Your task to perform on an android device: create a new album in the google photos Image 0: 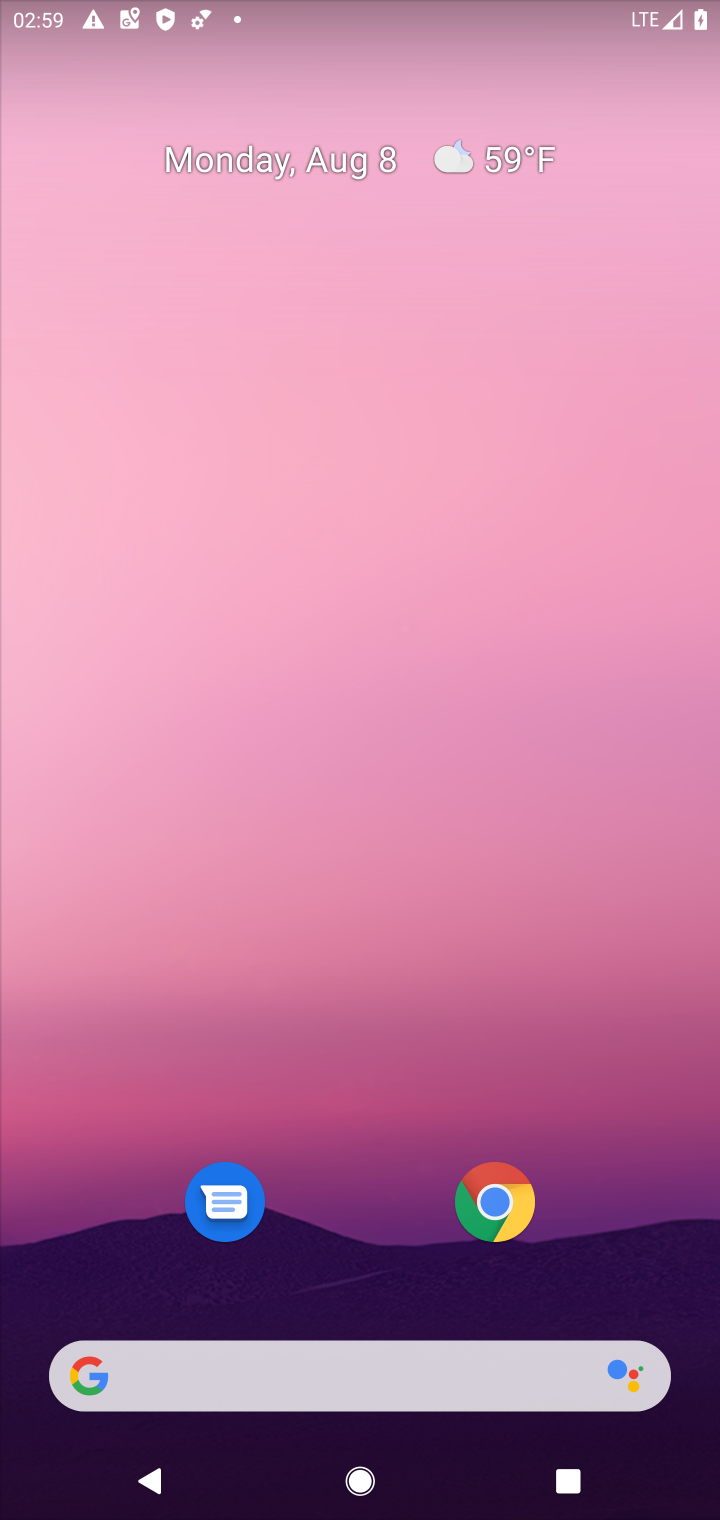
Step 0: click (358, 309)
Your task to perform on an android device: create a new album in the google photos Image 1: 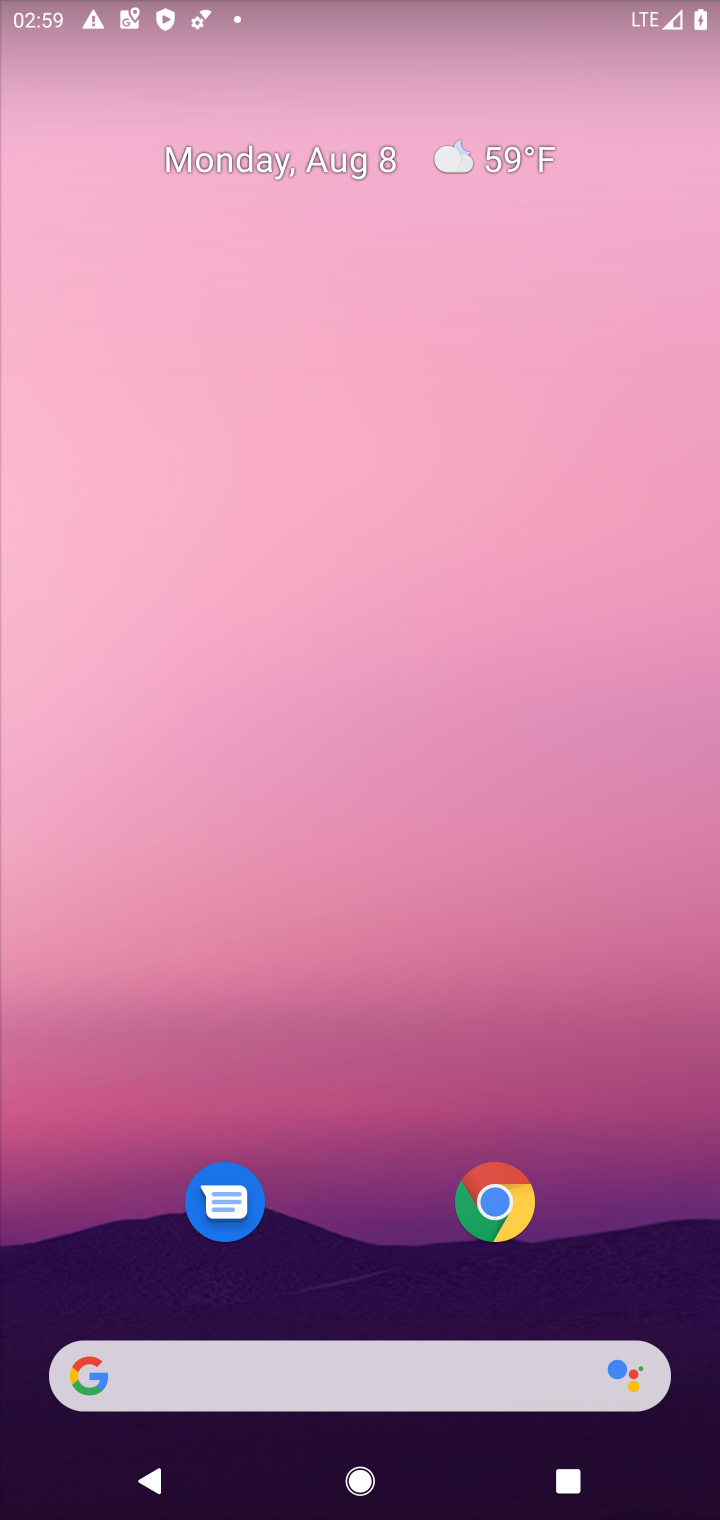
Step 1: drag from (417, 593) to (428, 445)
Your task to perform on an android device: create a new album in the google photos Image 2: 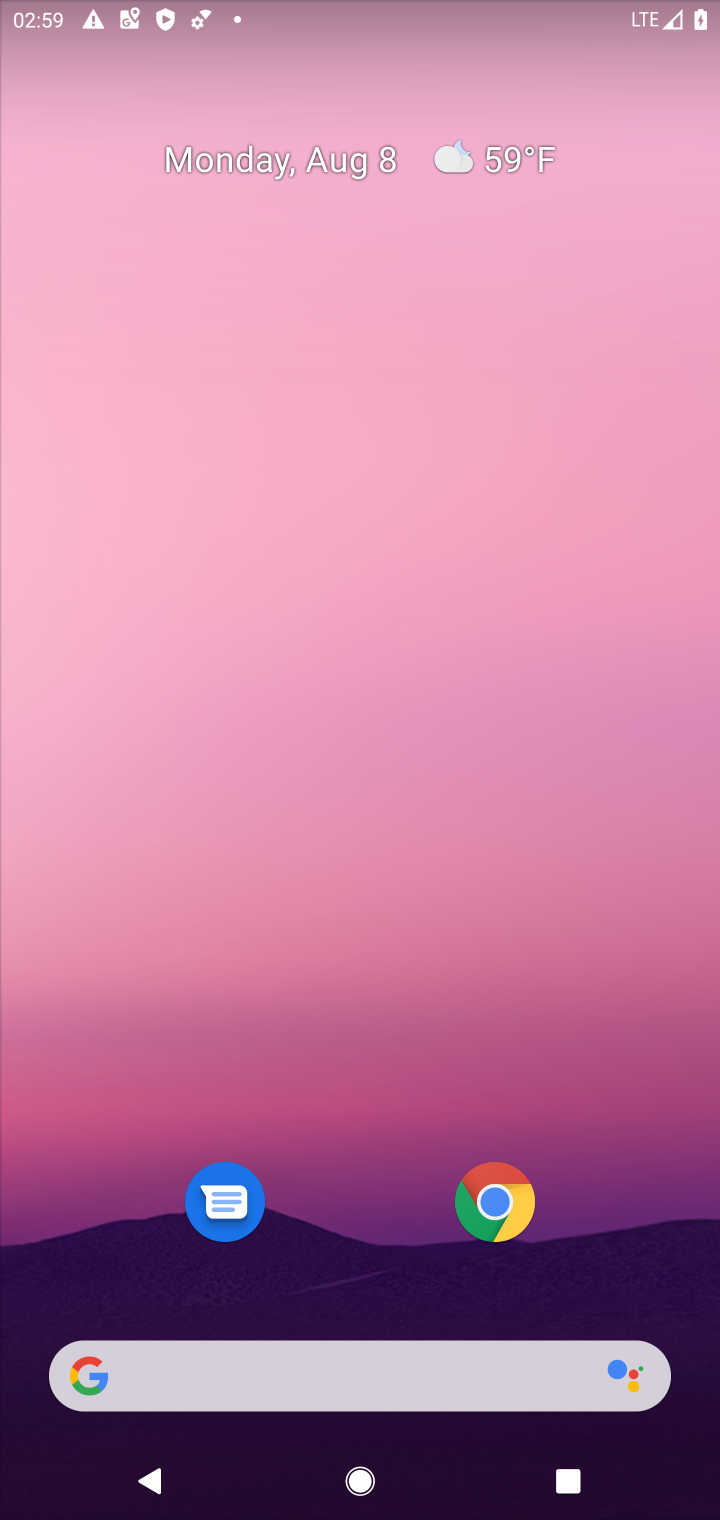
Step 2: click (450, 83)
Your task to perform on an android device: create a new album in the google photos Image 3: 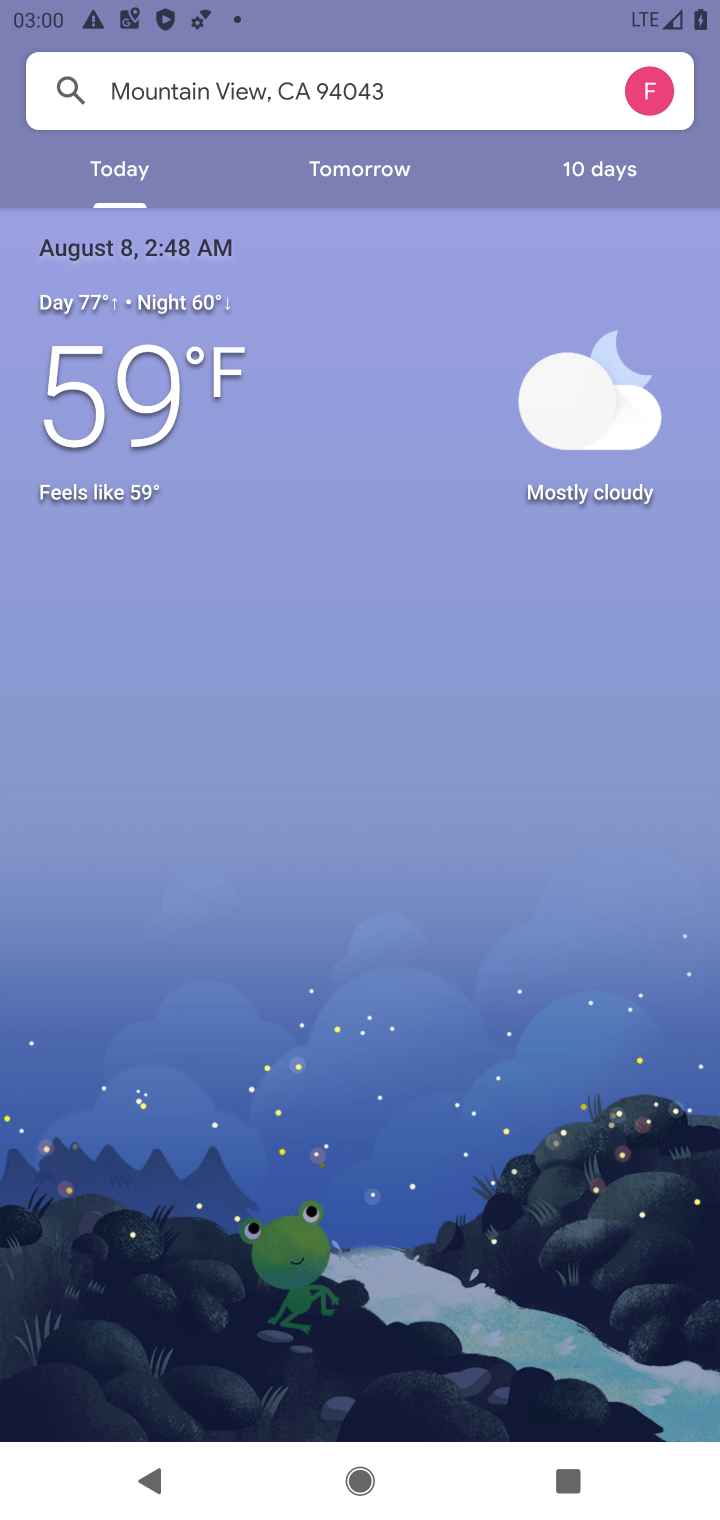
Step 3: press home button
Your task to perform on an android device: create a new album in the google photos Image 4: 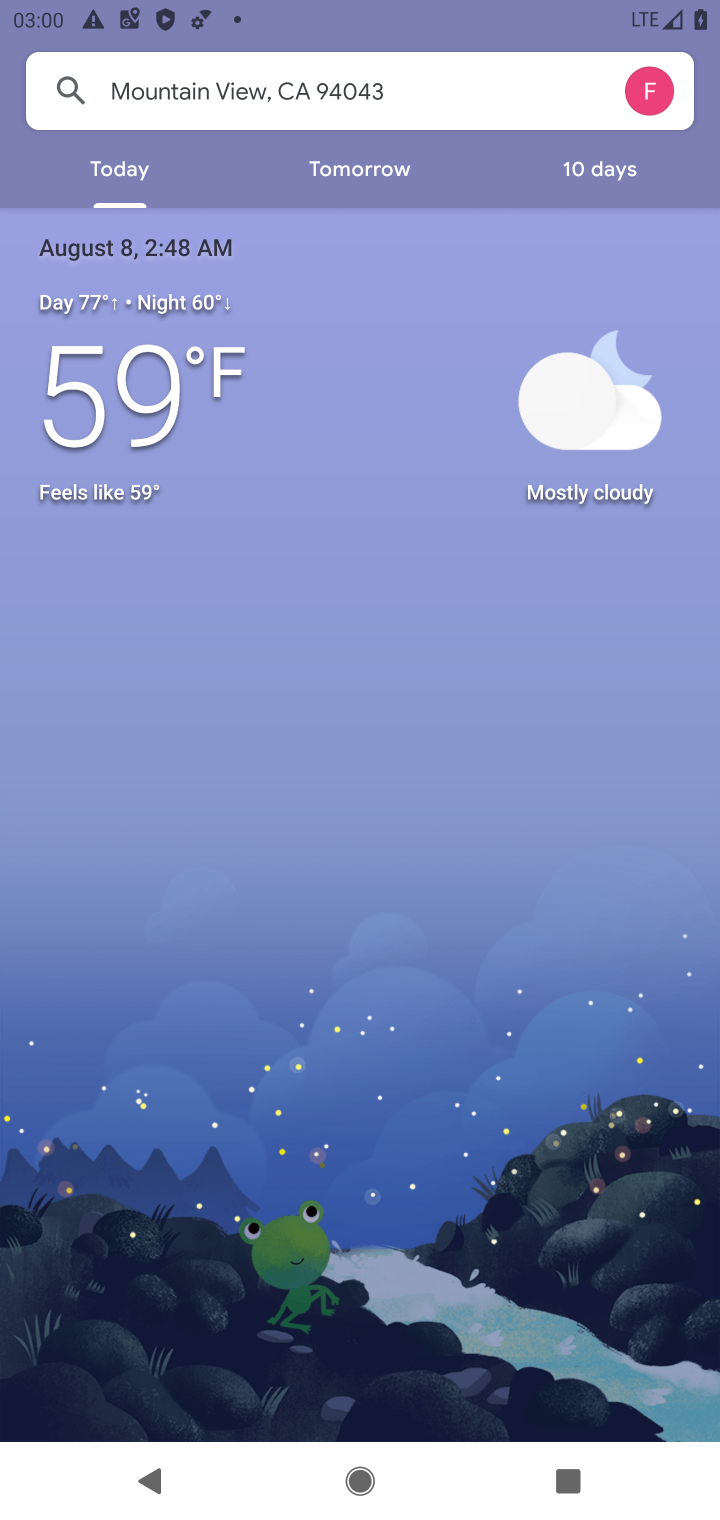
Step 4: press home button
Your task to perform on an android device: create a new album in the google photos Image 5: 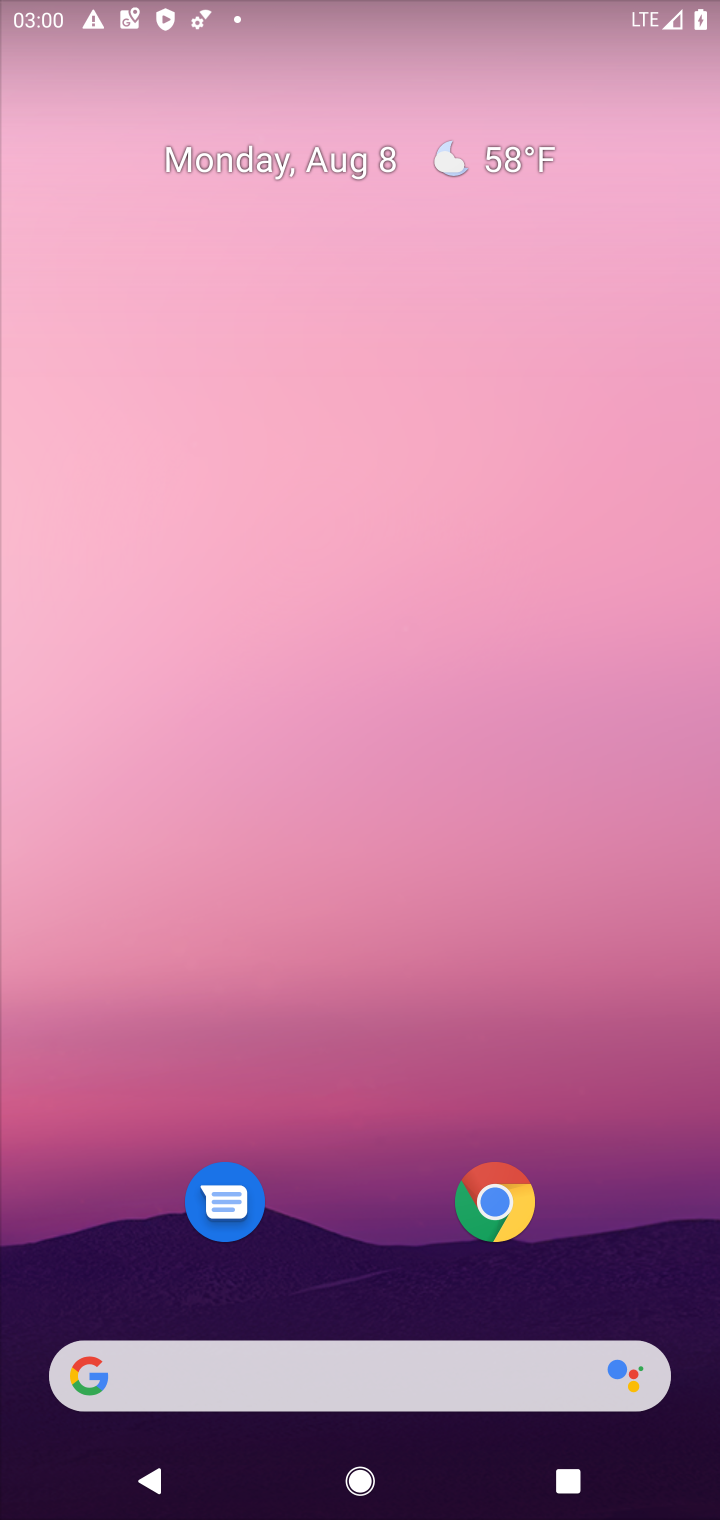
Step 5: drag from (332, 1265) to (306, 366)
Your task to perform on an android device: create a new album in the google photos Image 6: 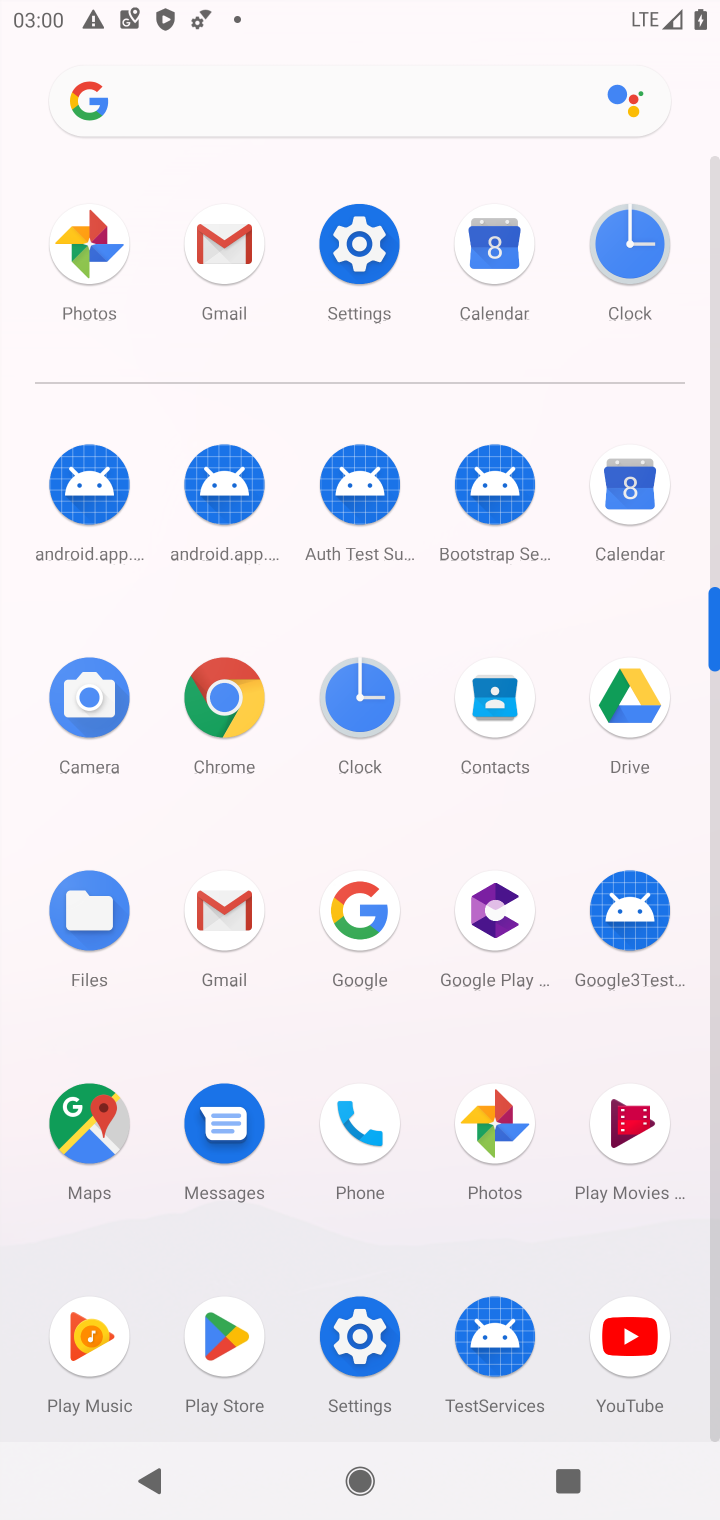
Step 6: click (497, 1122)
Your task to perform on an android device: create a new album in the google photos Image 7: 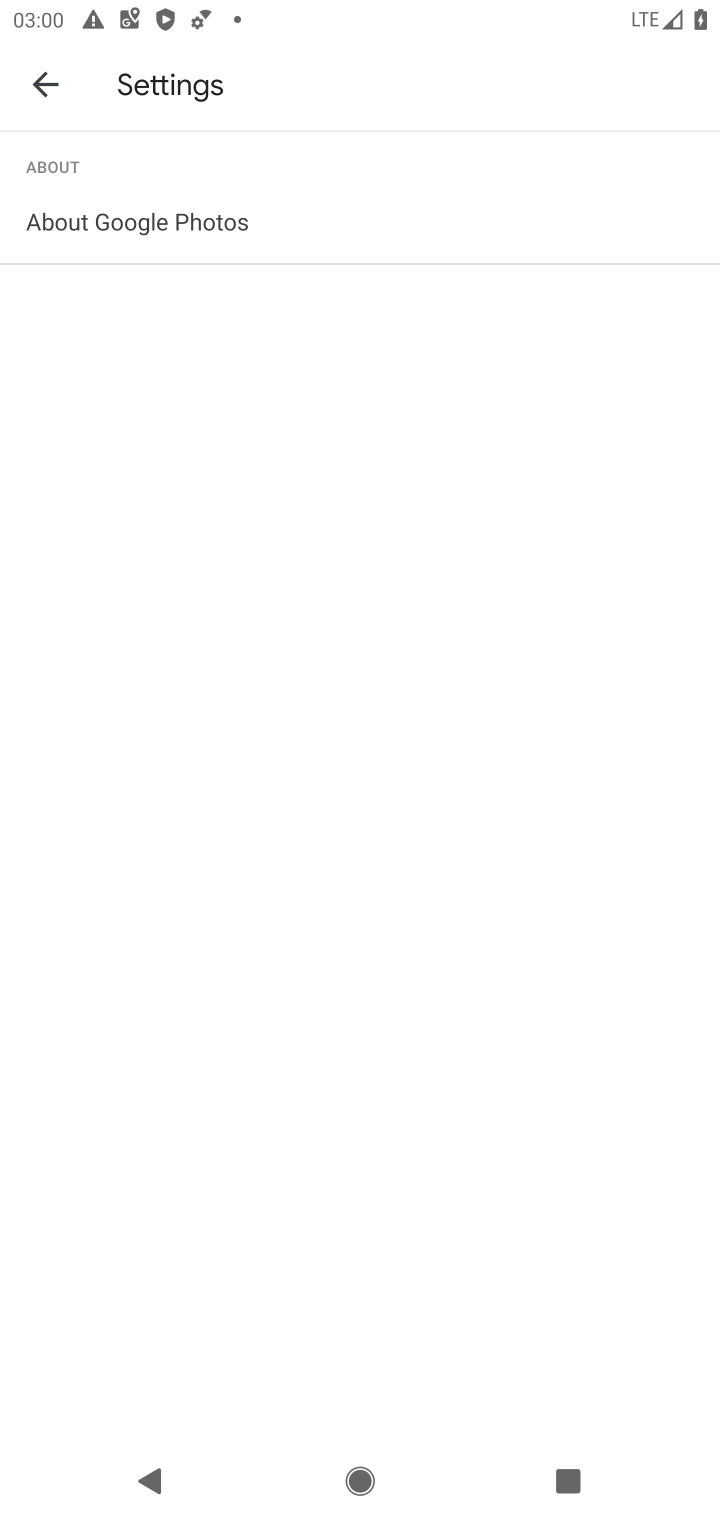
Step 7: click (28, 69)
Your task to perform on an android device: create a new album in the google photos Image 8: 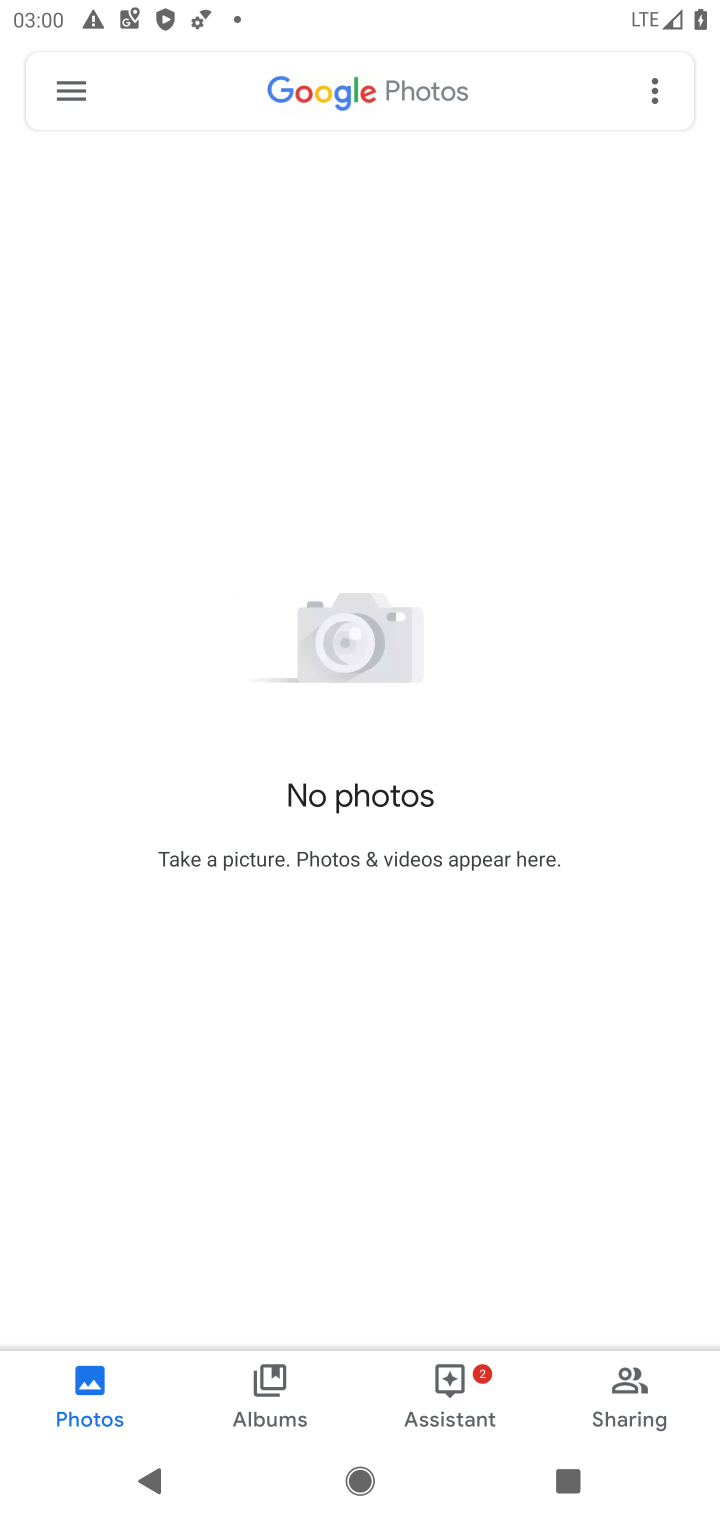
Step 8: click (272, 1386)
Your task to perform on an android device: create a new album in the google photos Image 9: 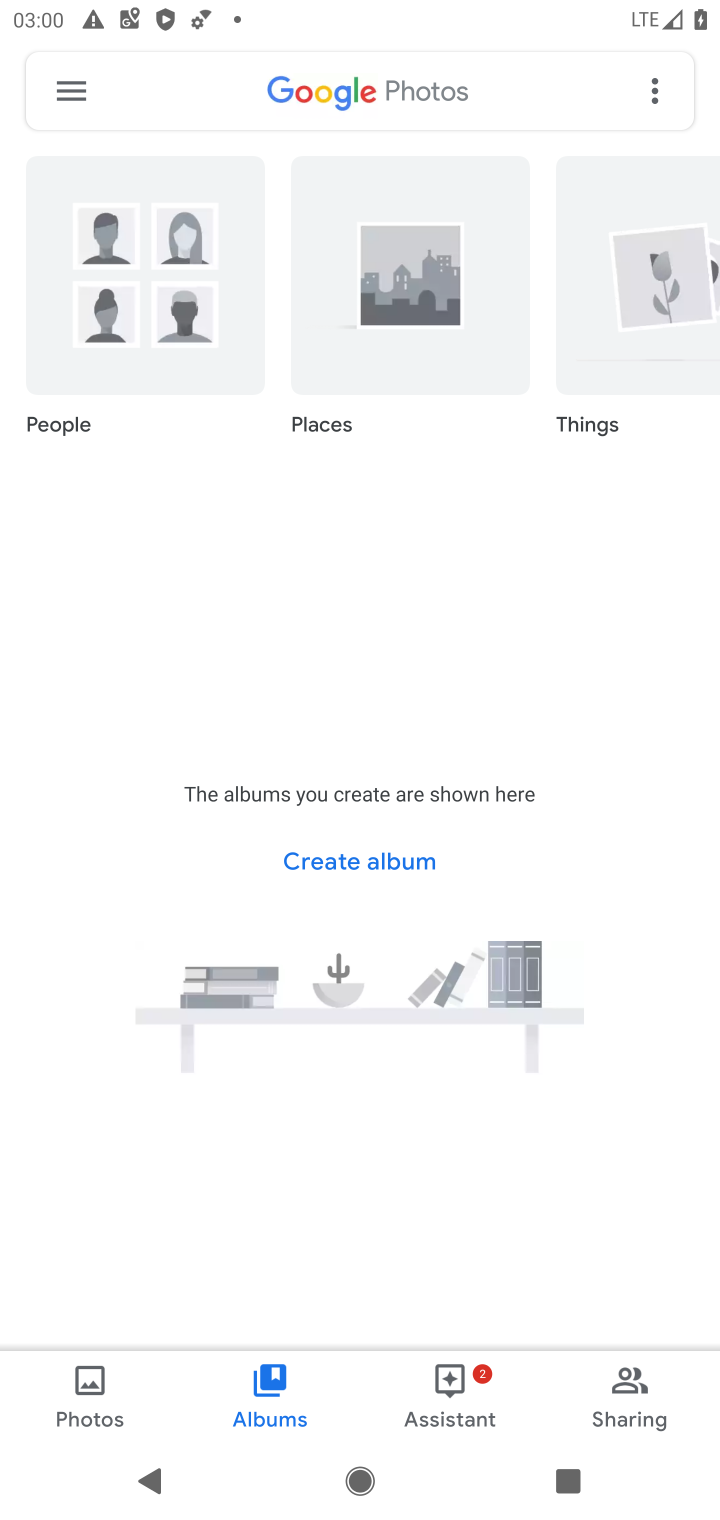
Step 9: task complete